Your task to perform on an android device: change notification settings in the gmail app Image 0: 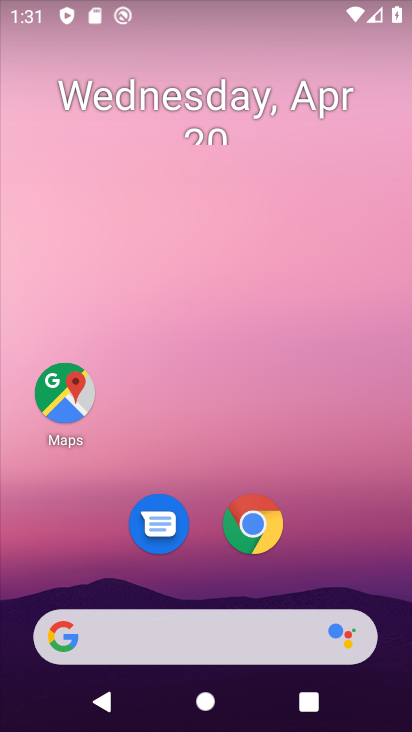
Step 0: drag from (354, 562) to (304, 1)
Your task to perform on an android device: change notification settings in the gmail app Image 1: 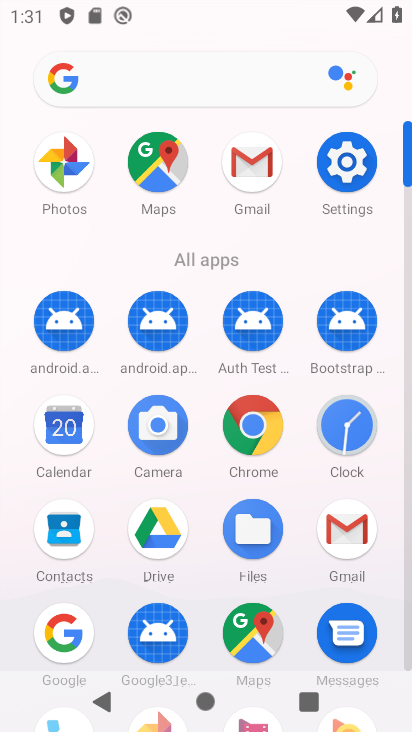
Step 1: click (242, 164)
Your task to perform on an android device: change notification settings in the gmail app Image 2: 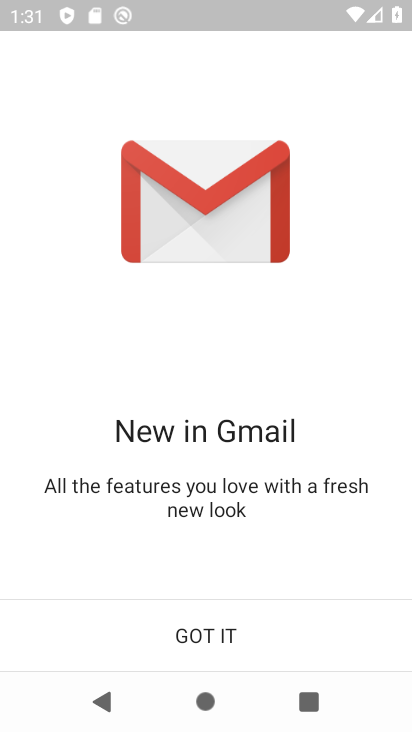
Step 2: click (239, 628)
Your task to perform on an android device: change notification settings in the gmail app Image 3: 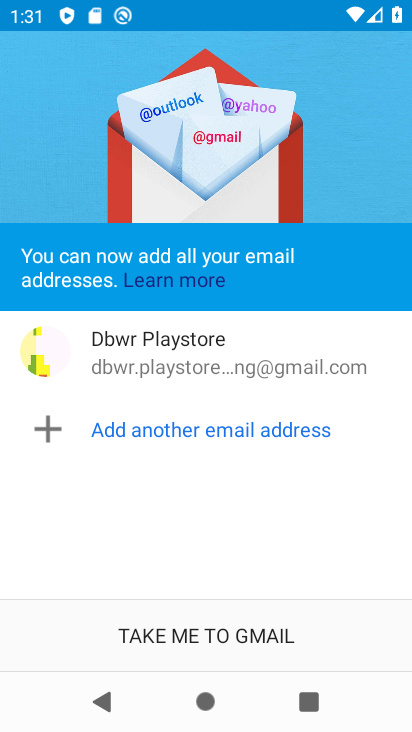
Step 3: click (237, 622)
Your task to perform on an android device: change notification settings in the gmail app Image 4: 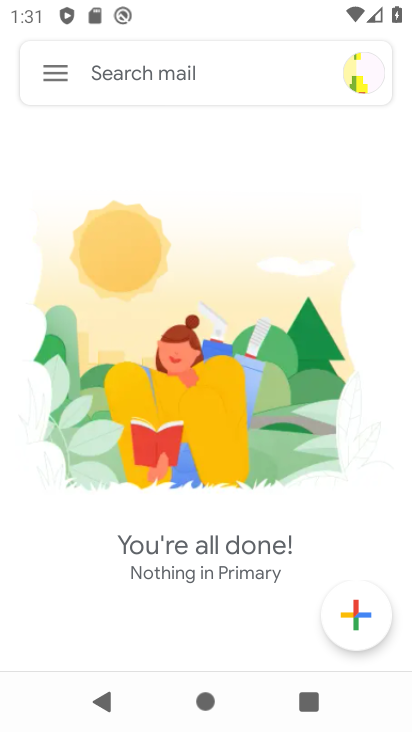
Step 4: click (50, 65)
Your task to perform on an android device: change notification settings in the gmail app Image 5: 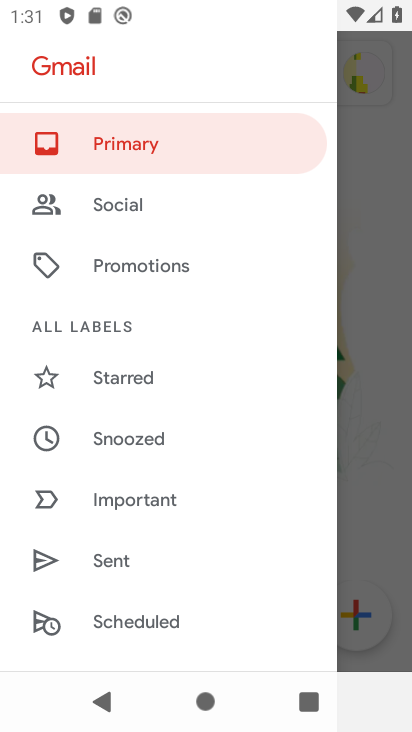
Step 5: drag from (184, 552) to (178, 100)
Your task to perform on an android device: change notification settings in the gmail app Image 6: 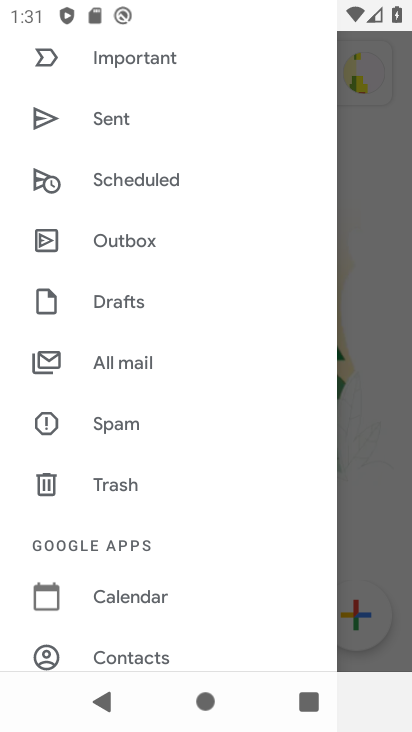
Step 6: drag from (184, 557) to (161, 197)
Your task to perform on an android device: change notification settings in the gmail app Image 7: 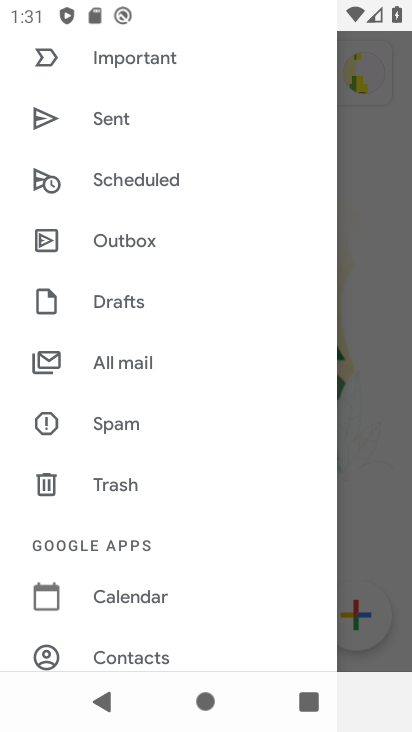
Step 7: drag from (158, 488) to (193, 250)
Your task to perform on an android device: change notification settings in the gmail app Image 8: 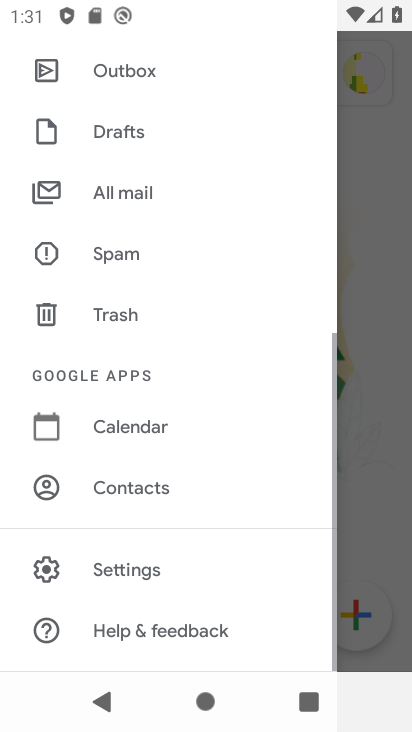
Step 8: click (139, 563)
Your task to perform on an android device: change notification settings in the gmail app Image 9: 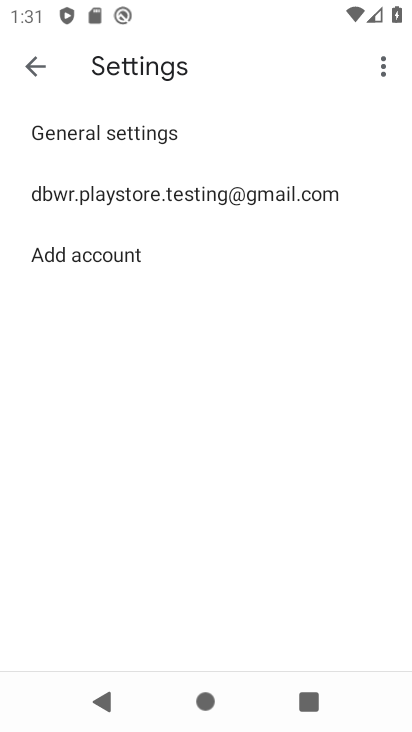
Step 9: click (268, 196)
Your task to perform on an android device: change notification settings in the gmail app Image 10: 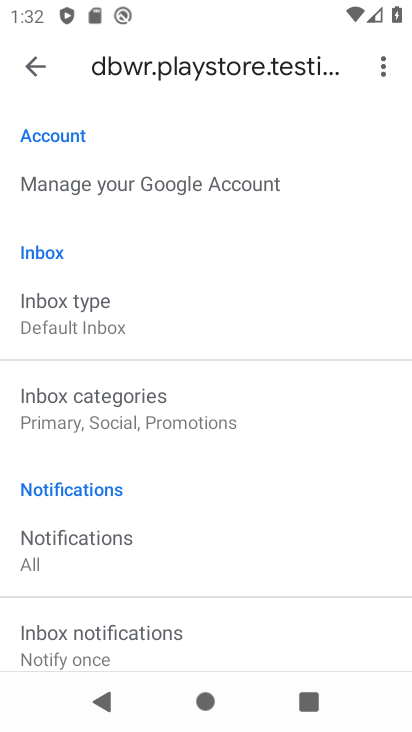
Step 10: drag from (244, 632) to (234, 175)
Your task to perform on an android device: change notification settings in the gmail app Image 11: 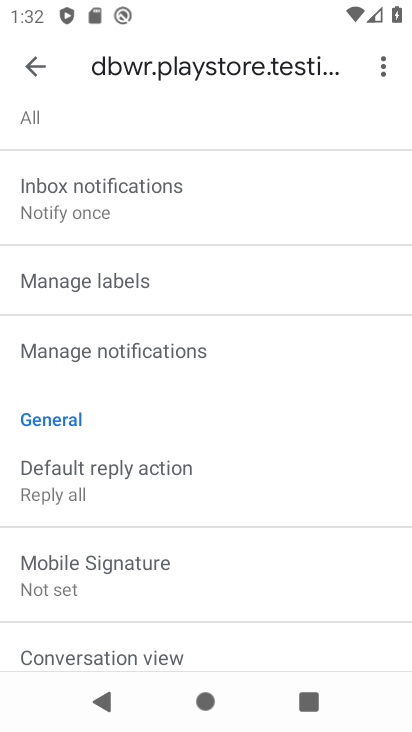
Step 11: click (216, 344)
Your task to perform on an android device: change notification settings in the gmail app Image 12: 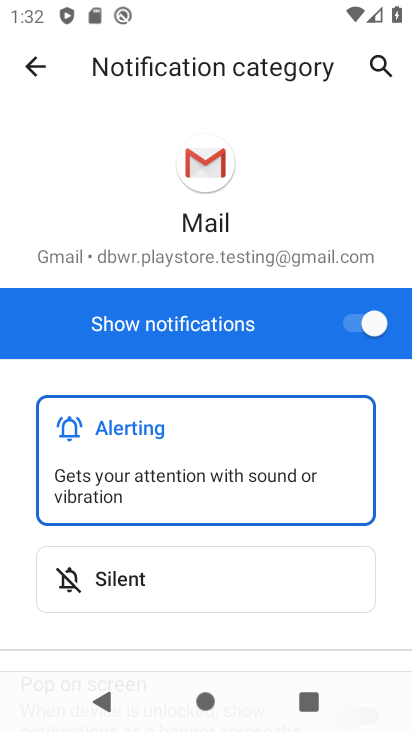
Step 12: click (354, 308)
Your task to perform on an android device: change notification settings in the gmail app Image 13: 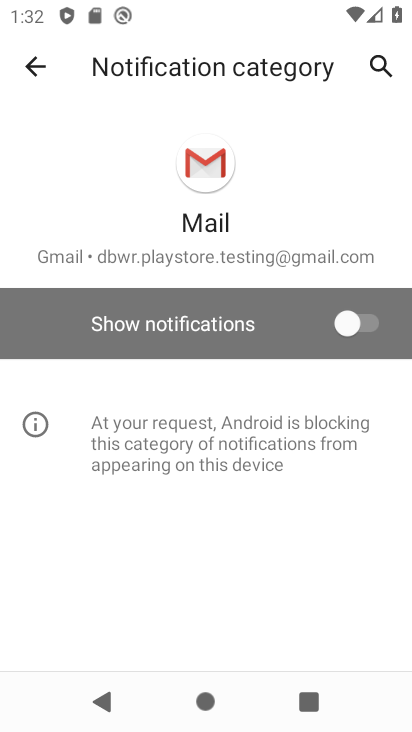
Step 13: task complete